Your task to perform on an android device: change keyboard looks Image 0: 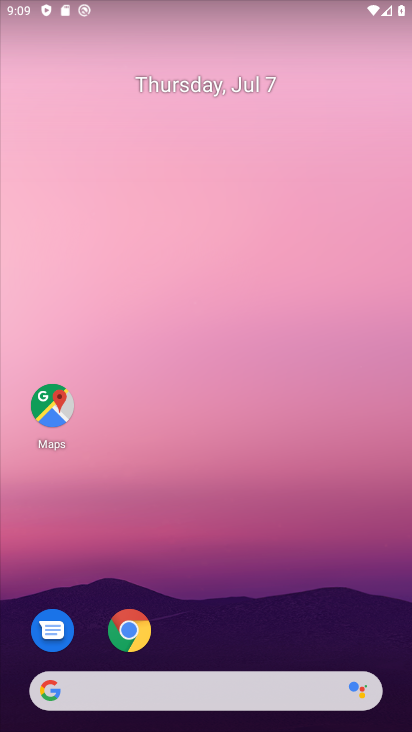
Step 0: drag from (170, 681) to (225, 166)
Your task to perform on an android device: change keyboard looks Image 1: 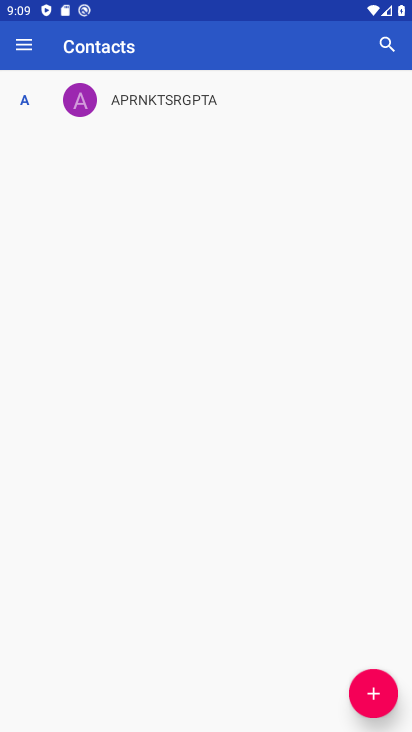
Step 1: press home button
Your task to perform on an android device: change keyboard looks Image 2: 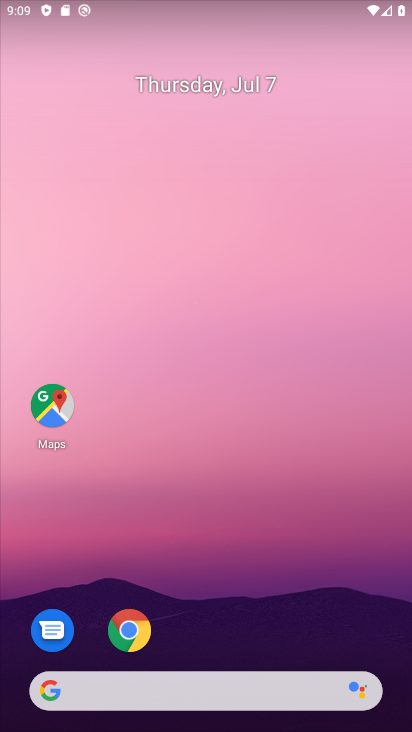
Step 2: drag from (195, 658) to (221, 408)
Your task to perform on an android device: change keyboard looks Image 3: 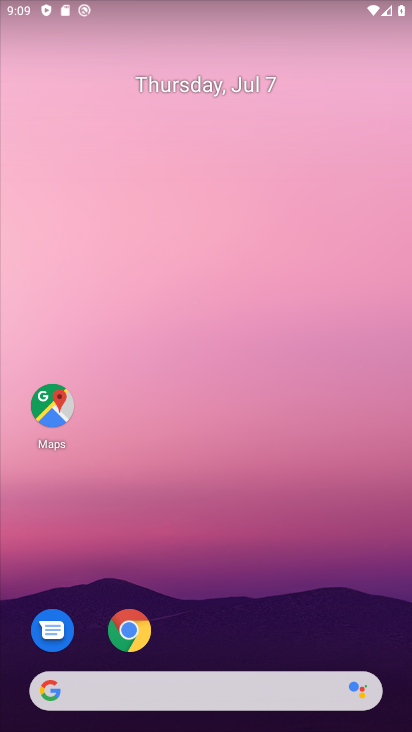
Step 3: drag from (204, 669) to (157, 319)
Your task to perform on an android device: change keyboard looks Image 4: 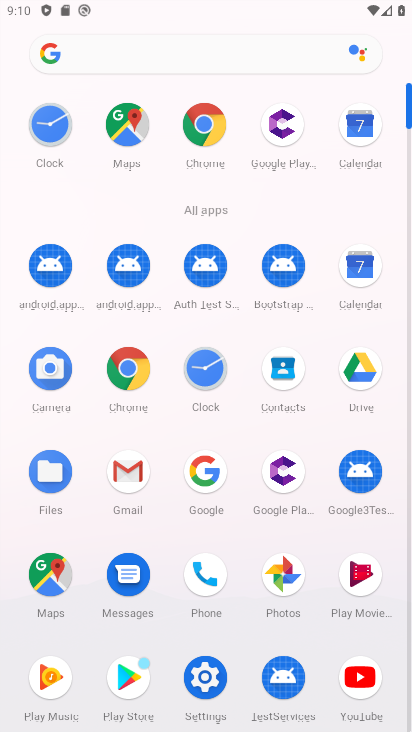
Step 4: click (207, 661)
Your task to perform on an android device: change keyboard looks Image 5: 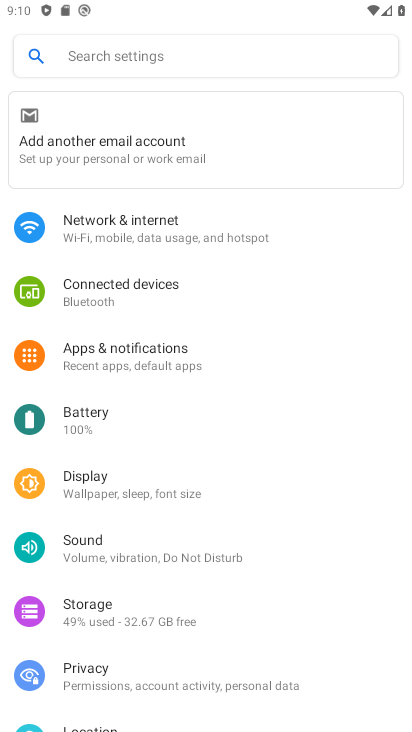
Step 5: drag from (122, 712) to (123, 501)
Your task to perform on an android device: change keyboard looks Image 6: 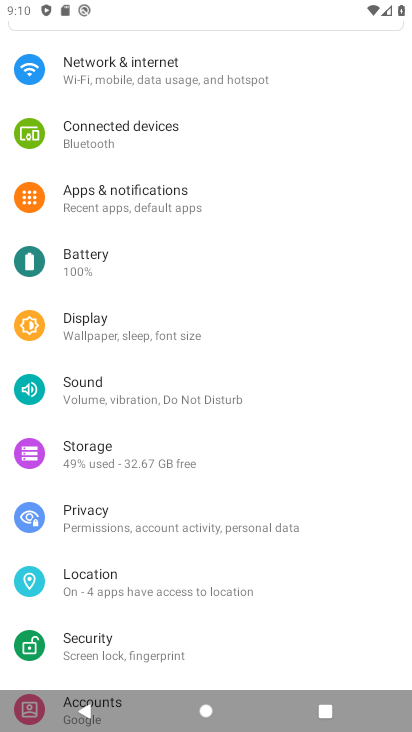
Step 6: drag from (116, 672) to (133, 363)
Your task to perform on an android device: change keyboard looks Image 7: 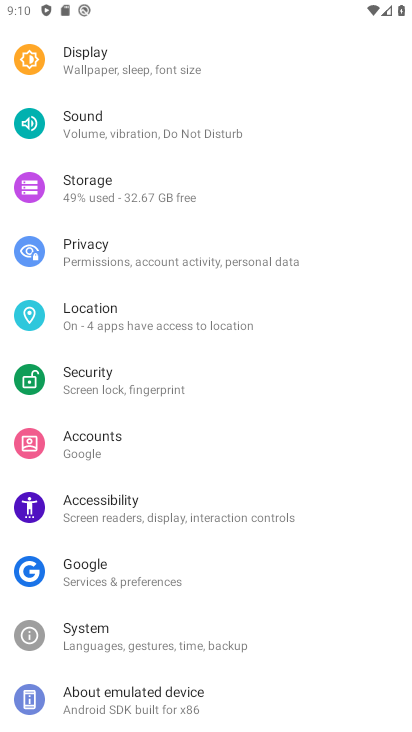
Step 7: click (93, 639)
Your task to perform on an android device: change keyboard looks Image 8: 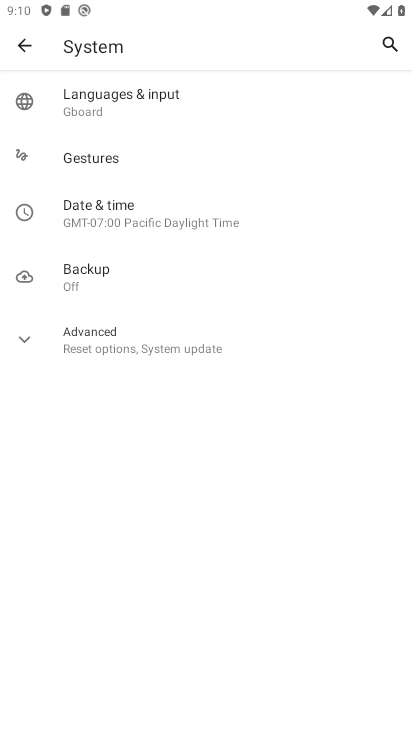
Step 8: click (127, 107)
Your task to perform on an android device: change keyboard looks Image 9: 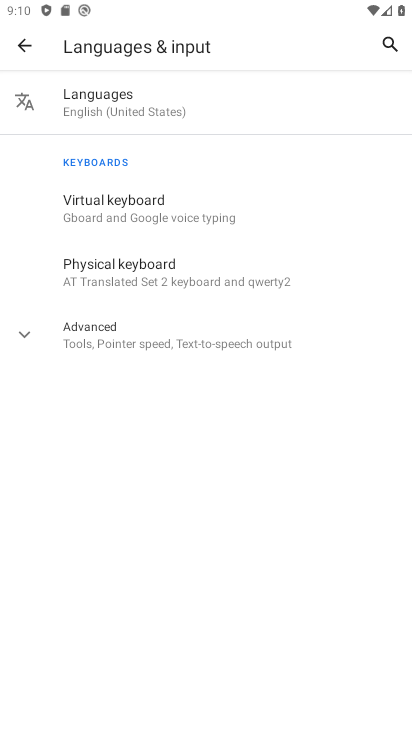
Step 9: click (108, 324)
Your task to perform on an android device: change keyboard looks Image 10: 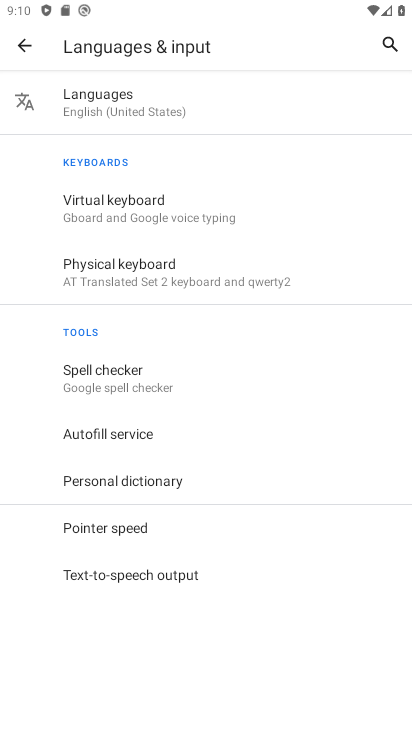
Step 10: click (123, 199)
Your task to perform on an android device: change keyboard looks Image 11: 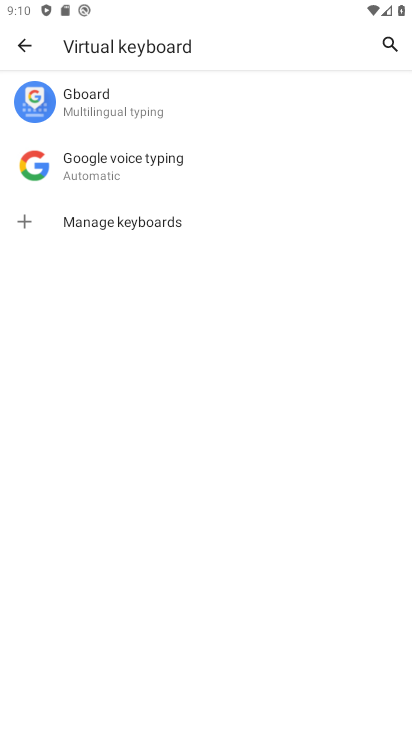
Step 11: click (109, 112)
Your task to perform on an android device: change keyboard looks Image 12: 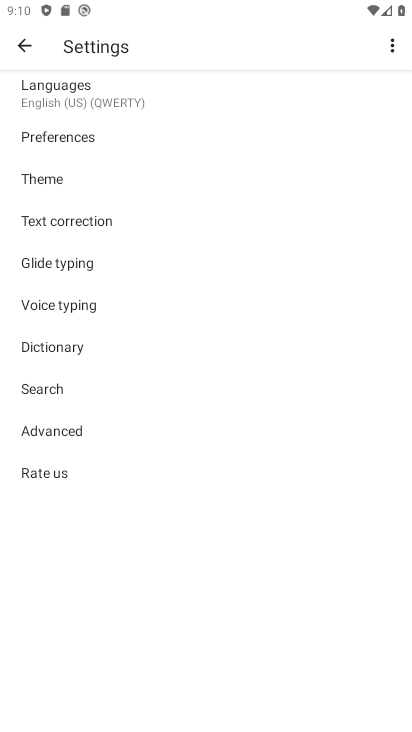
Step 12: click (56, 173)
Your task to perform on an android device: change keyboard looks Image 13: 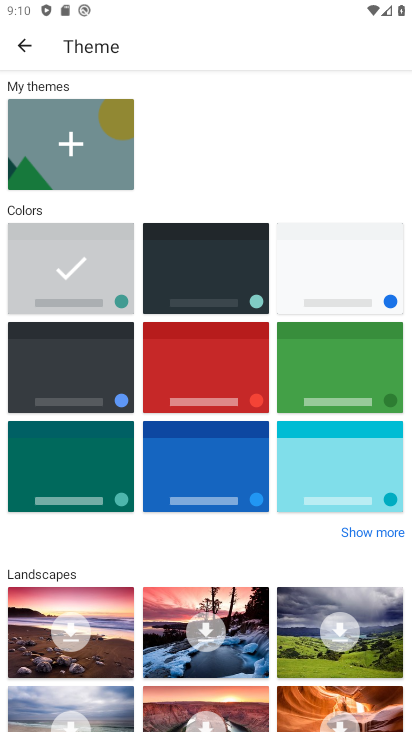
Step 13: click (176, 273)
Your task to perform on an android device: change keyboard looks Image 14: 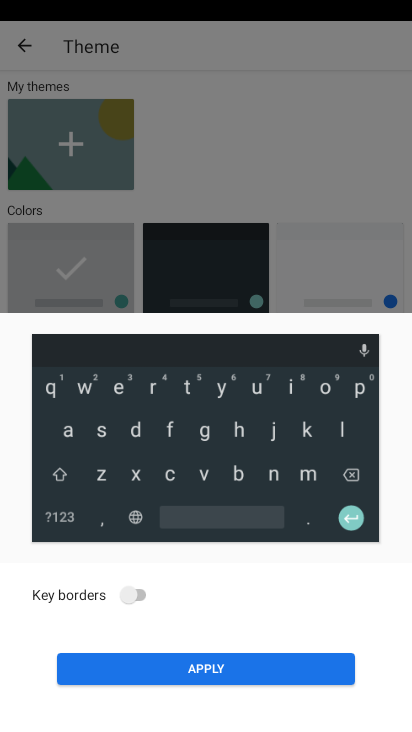
Step 14: click (212, 667)
Your task to perform on an android device: change keyboard looks Image 15: 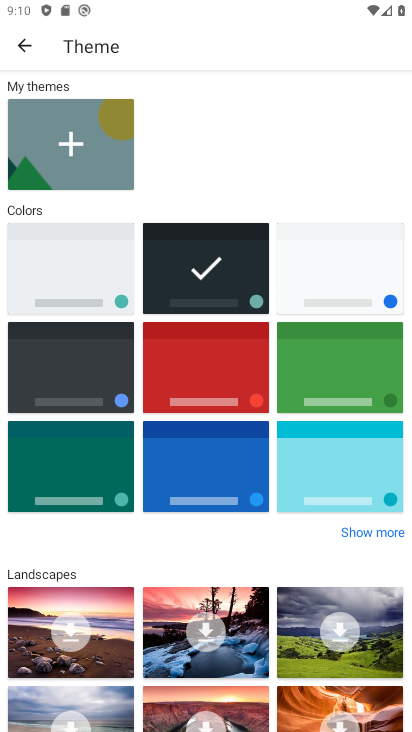
Step 15: task complete